Your task to perform on an android device: turn off translation in the chrome app Image 0: 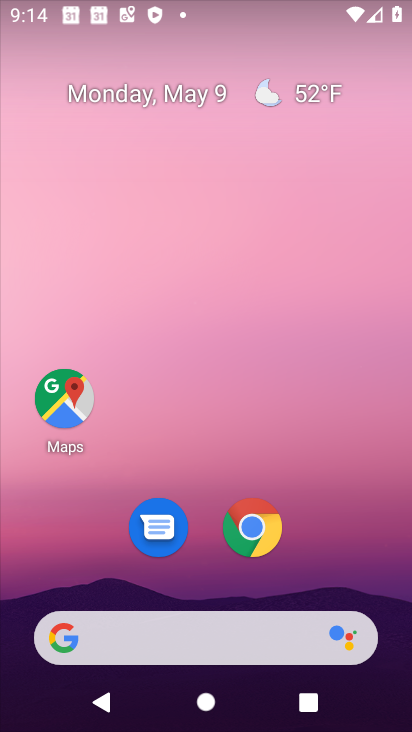
Step 0: click (254, 528)
Your task to perform on an android device: turn off translation in the chrome app Image 1: 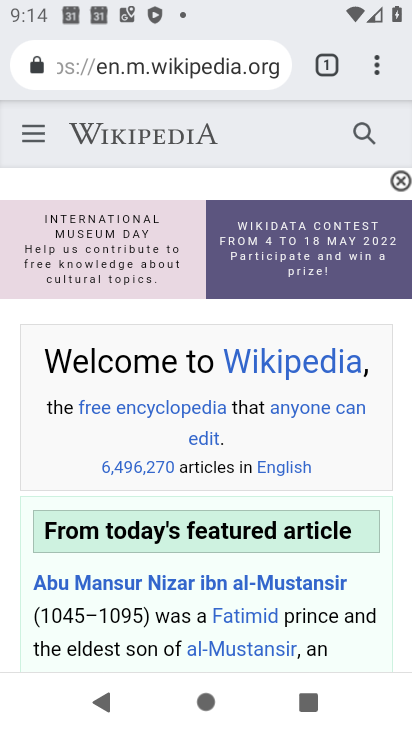
Step 1: click (365, 60)
Your task to perform on an android device: turn off translation in the chrome app Image 2: 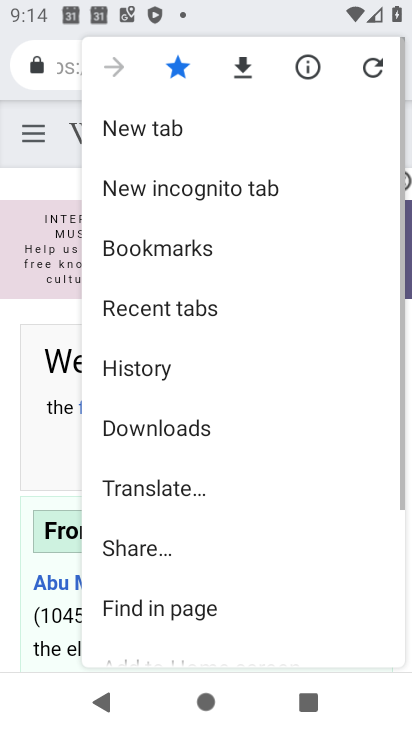
Step 2: drag from (188, 595) to (257, 90)
Your task to perform on an android device: turn off translation in the chrome app Image 3: 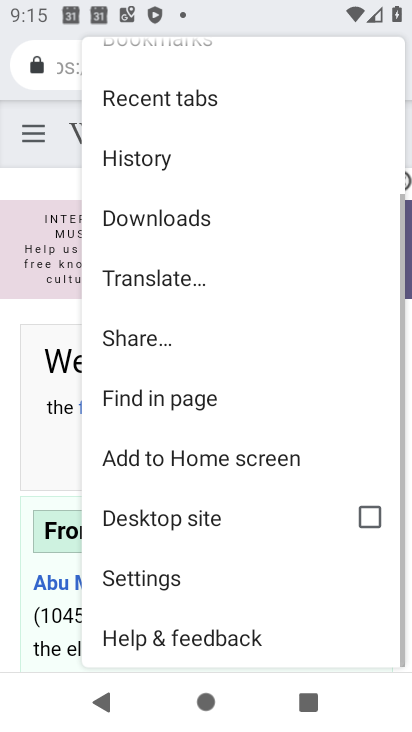
Step 3: click (149, 590)
Your task to perform on an android device: turn off translation in the chrome app Image 4: 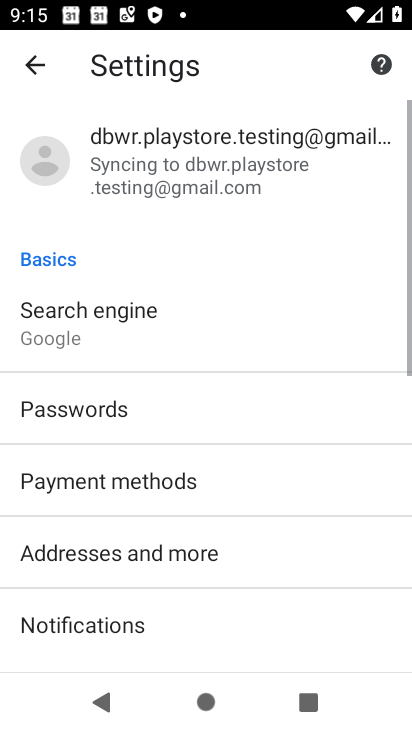
Step 4: drag from (245, 588) to (238, 0)
Your task to perform on an android device: turn off translation in the chrome app Image 5: 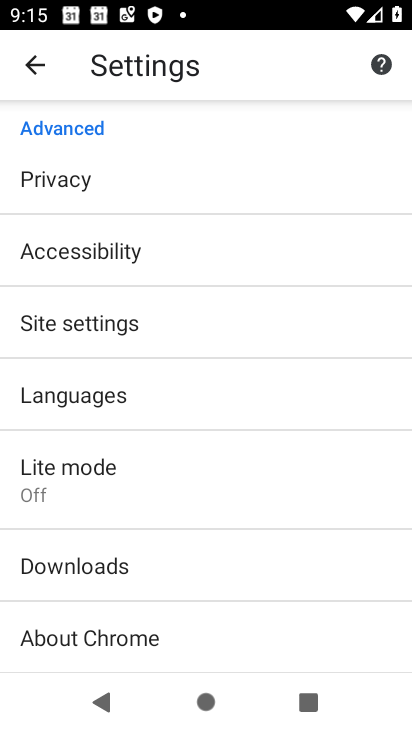
Step 5: click (81, 401)
Your task to perform on an android device: turn off translation in the chrome app Image 6: 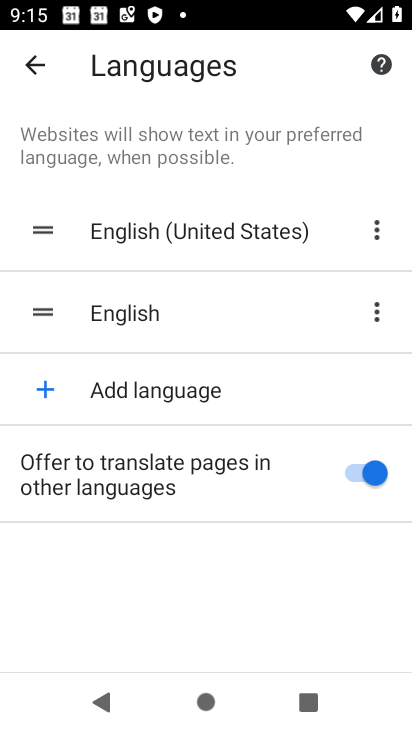
Step 6: click (360, 481)
Your task to perform on an android device: turn off translation in the chrome app Image 7: 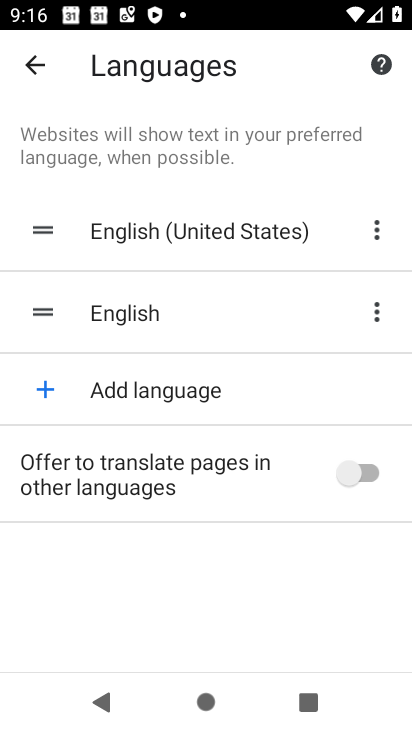
Step 7: task complete